Your task to perform on an android device: Open Yahoo.com Image 0: 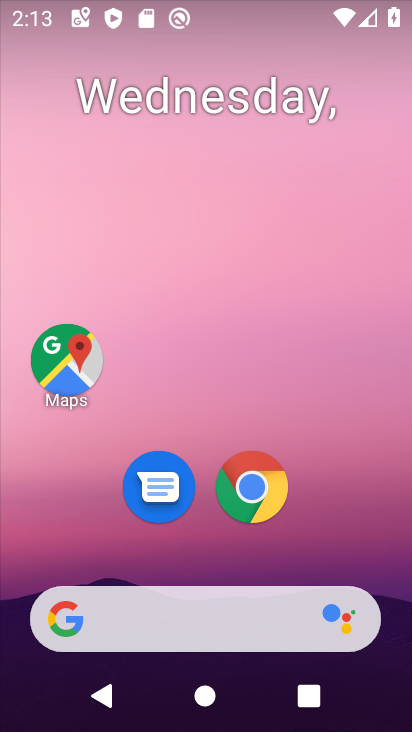
Step 0: click (252, 489)
Your task to perform on an android device: Open Yahoo.com Image 1: 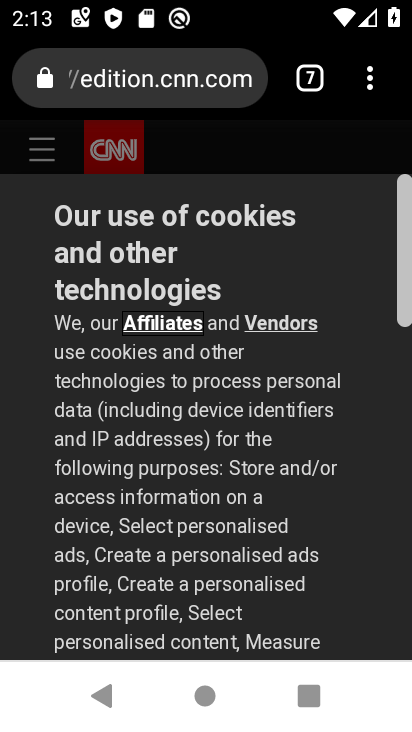
Step 1: click (367, 76)
Your task to perform on an android device: Open Yahoo.com Image 2: 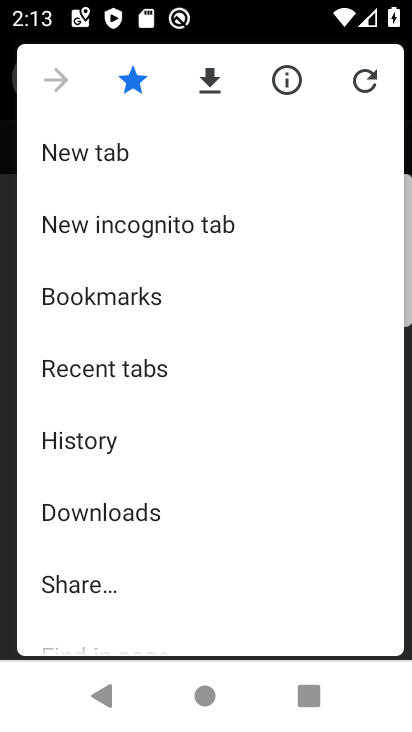
Step 2: click (97, 152)
Your task to perform on an android device: Open Yahoo.com Image 3: 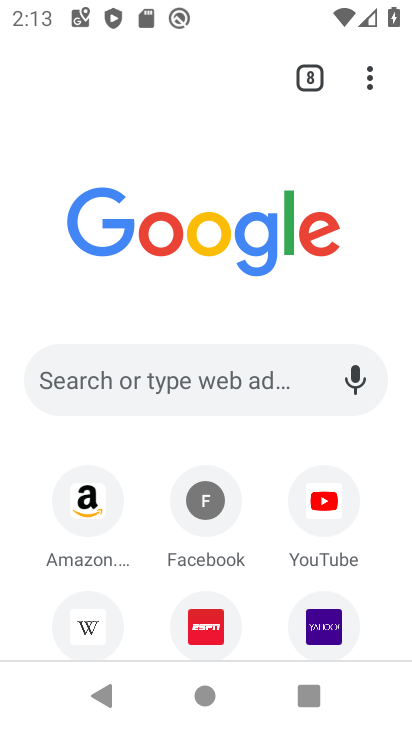
Step 3: click (312, 625)
Your task to perform on an android device: Open Yahoo.com Image 4: 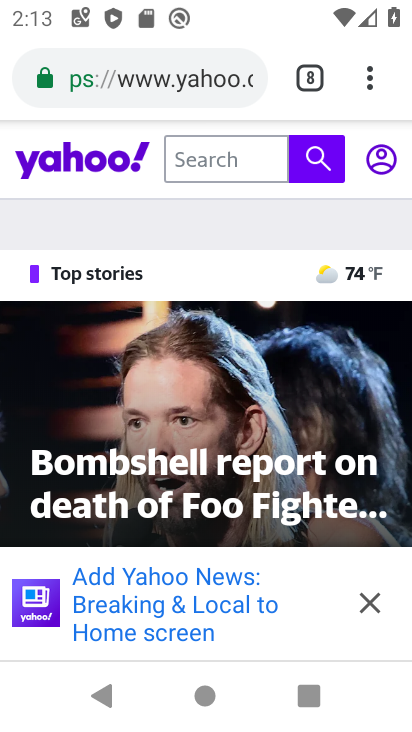
Step 4: task complete